Your task to perform on an android device: Show me recent news Image 0: 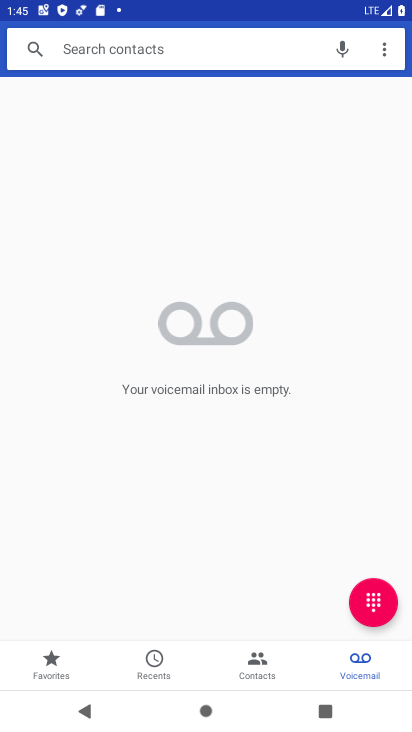
Step 0: press home button
Your task to perform on an android device: Show me recent news Image 1: 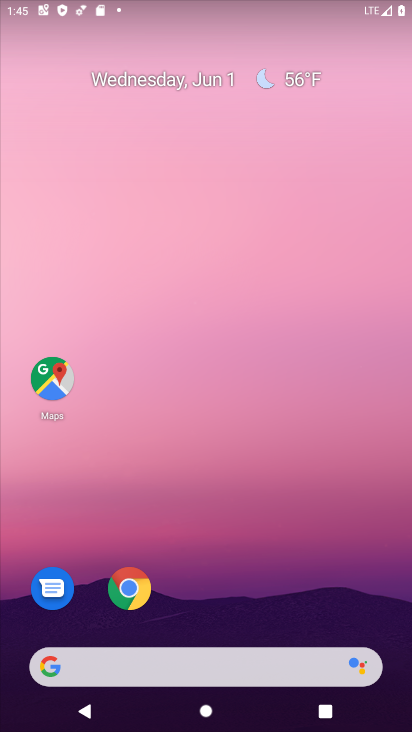
Step 1: drag from (315, 548) to (126, 0)
Your task to perform on an android device: Show me recent news Image 2: 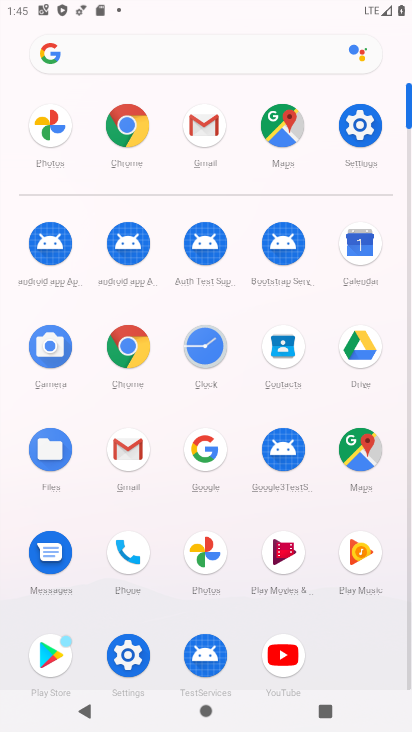
Step 2: click (193, 450)
Your task to perform on an android device: Show me recent news Image 3: 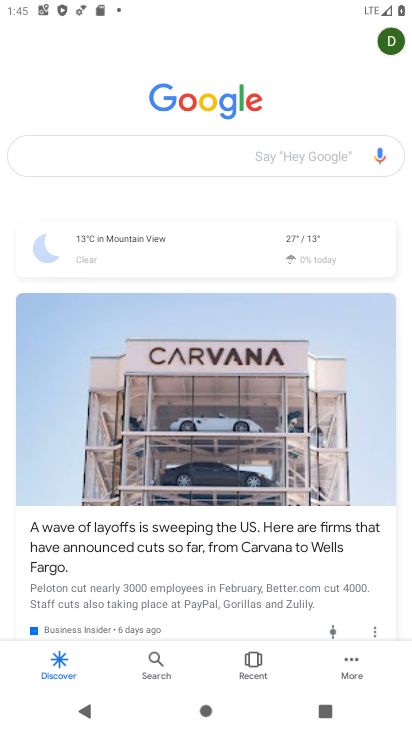
Step 3: click (210, 146)
Your task to perform on an android device: Show me recent news Image 4: 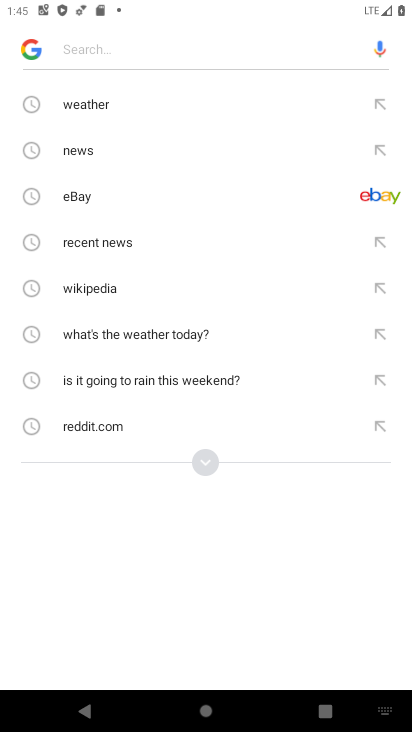
Step 4: click (126, 230)
Your task to perform on an android device: Show me recent news Image 5: 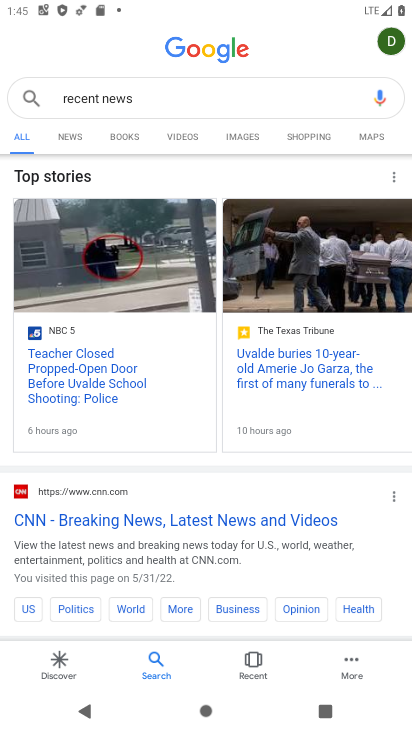
Step 5: task complete